Your task to perform on an android device: Open calendar and show me the first week of next month Image 0: 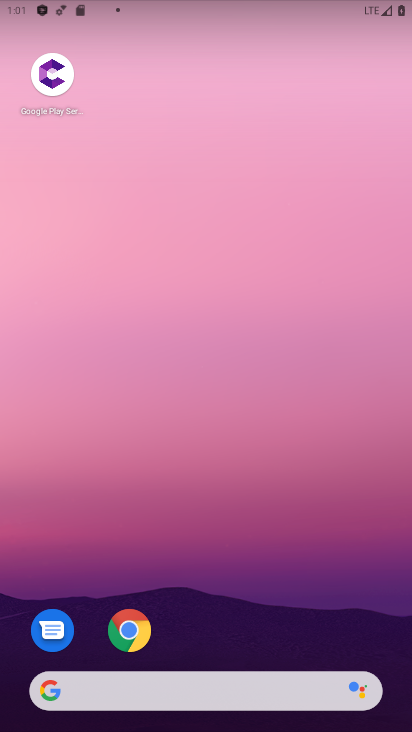
Step 0: drag from (263, 578) to (227, 170)
Your task to perform on an android device: Open calendar and show me the first week of next month Image 1: 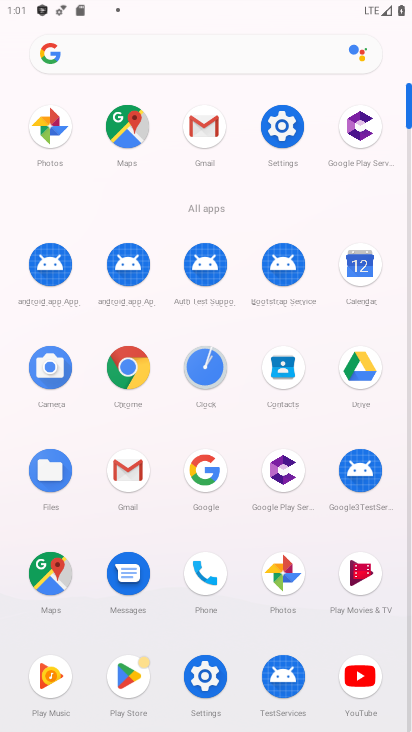
Step 1: click (344, 257)
Your task to perform on an android device: Open calendar and show me the first week of next month Image 2: 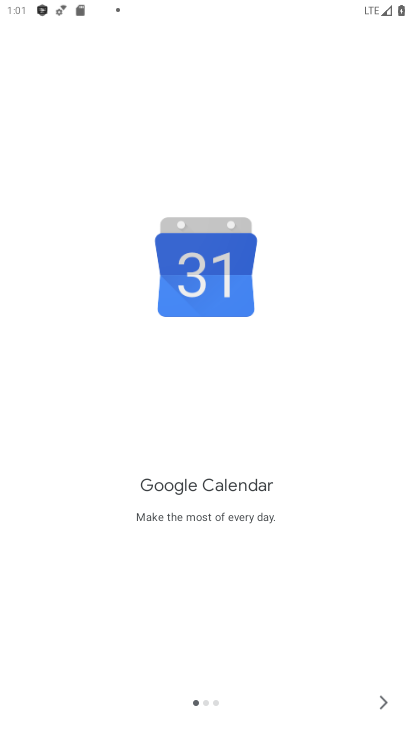
Step 2: click (385, 703)
Your task to perform on an android device: Open calendar and show me the first week of next month Image 3: 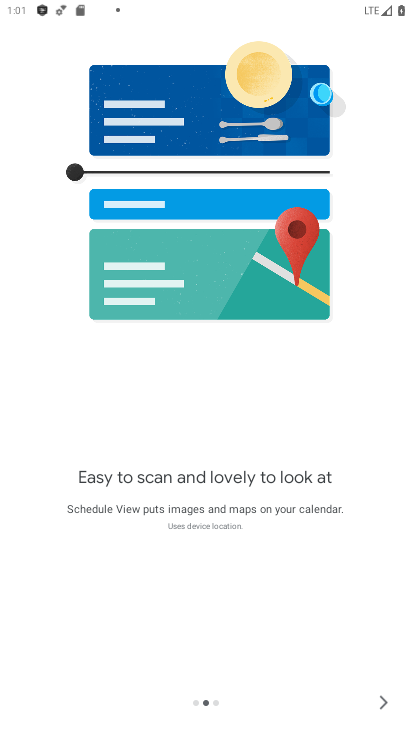
Step 3: click (385, 703)
Your task to perform on an android device: Open calendar and show me the first week of next month Image 4: 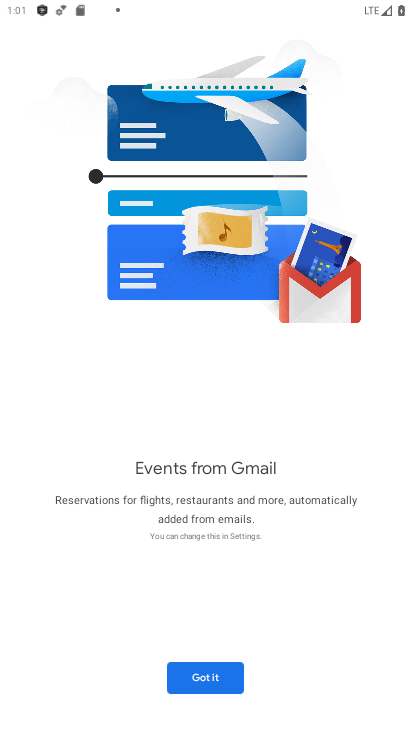
Step 4: click (205, 678)
Your task to perform on an android device: Open calendar and show me the first week of next month Image 5: 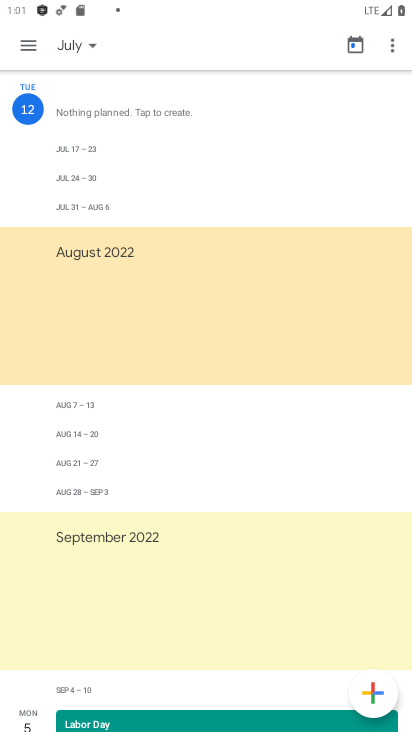
Step 5: click (84, 42)
Your task to perform on an android device: Open calendar and show me the first week of next month Image 6: 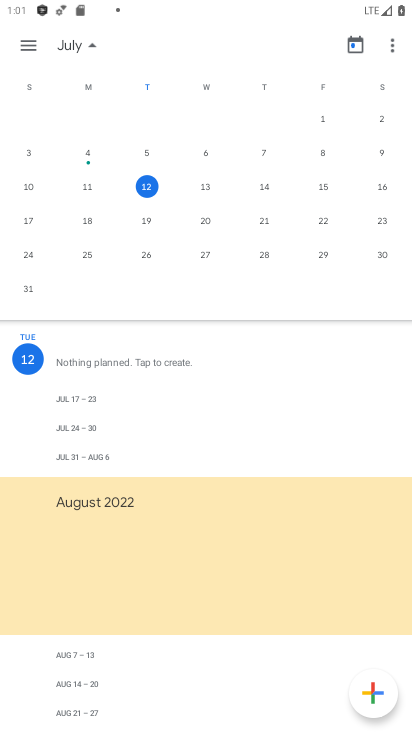
Step 6: click (23, 40)
Your task to perform on an android device: Open calendar and show me the first week of next month Image 7: 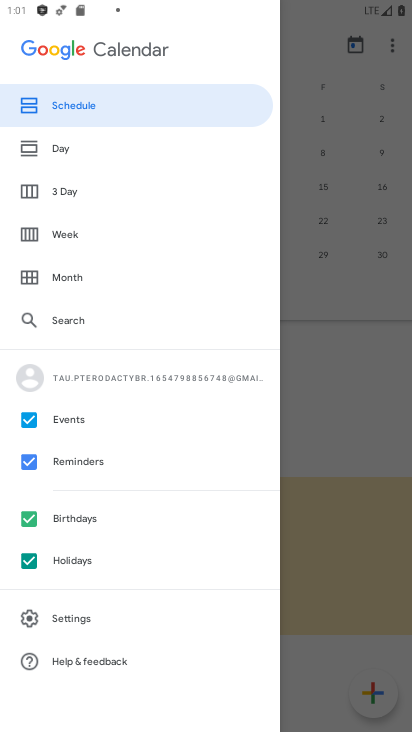
Step 7: click (67, 231)
Your task to perform on an android device: Open calendar and show me the first week of next month Image 8: 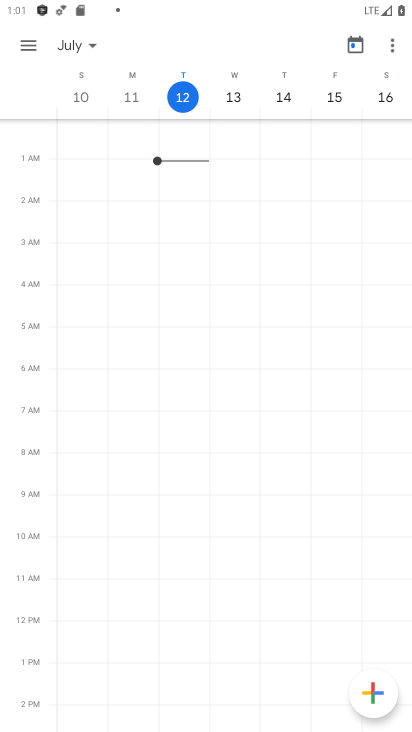
Step 8: click (89, 43)
Your task to perform on an android device: Open calendar and show me the first week of next month Image 9: 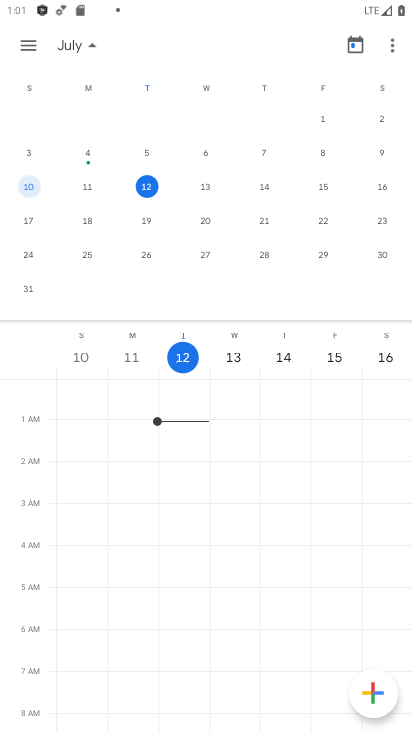
Step 9: drag from (377, 202) to (60, 118)
Your task to perform on an android device: Open calendar and show me the first week of next month Image 10: 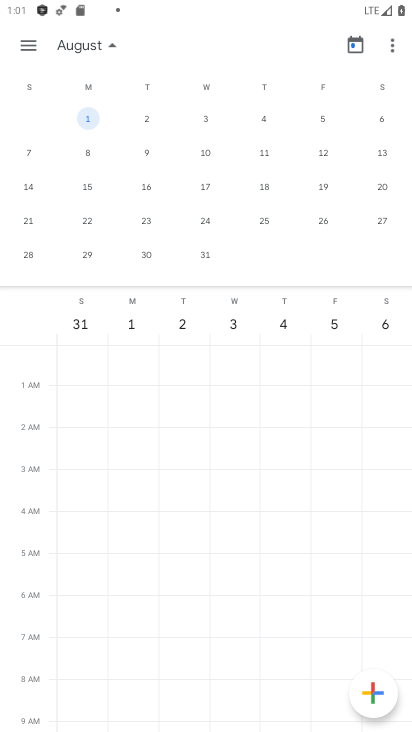
Step 10: click (94, 118)
Your task to perform on an android device: Open calendar and show me the first week of next month Image 11: 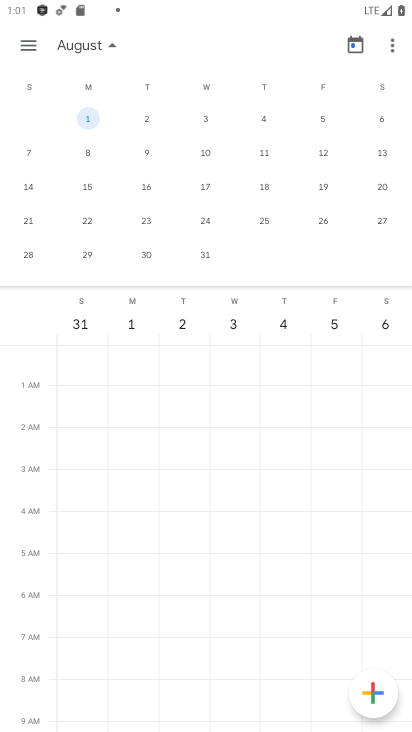
Step 11: task complete